Your task to perform on an android device: What's the news in India? Image 0: 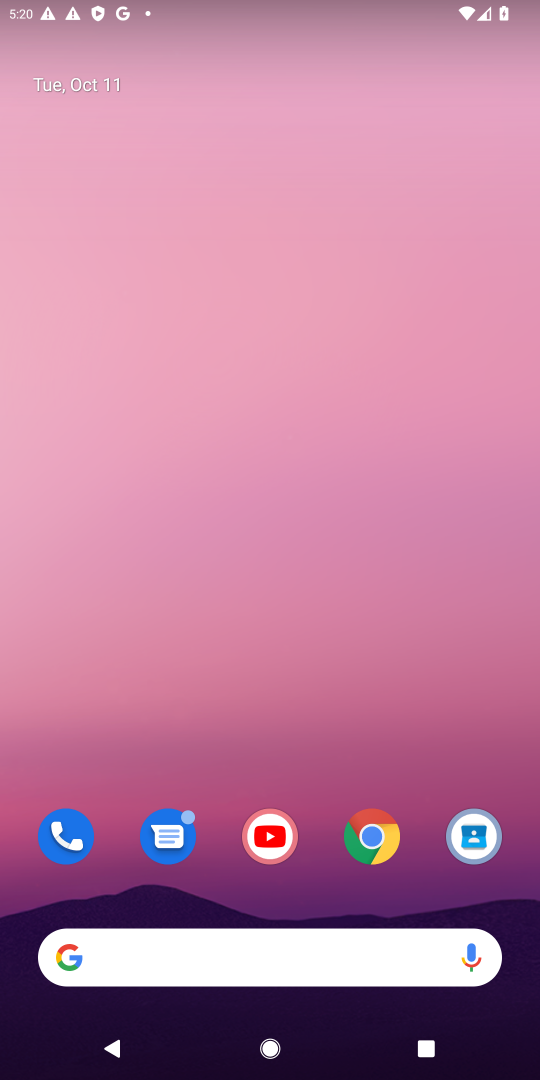
Step 0: click (372, 837)
Your task to perform on an android device: What's the news in India? Image 1: 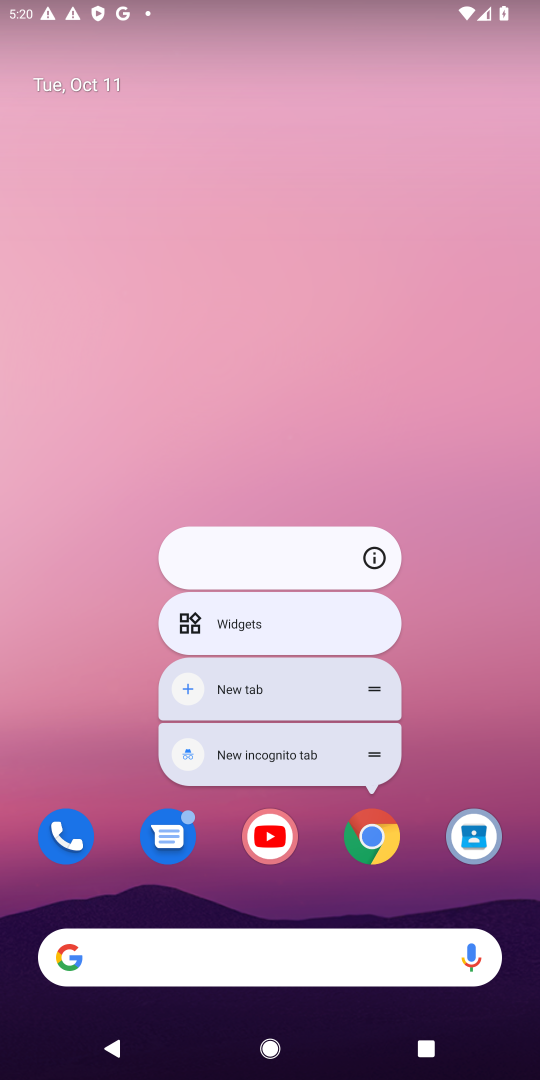
Step 1: click (374, 832)
Your task to perform on an android device: What's the news in India? Image 2: 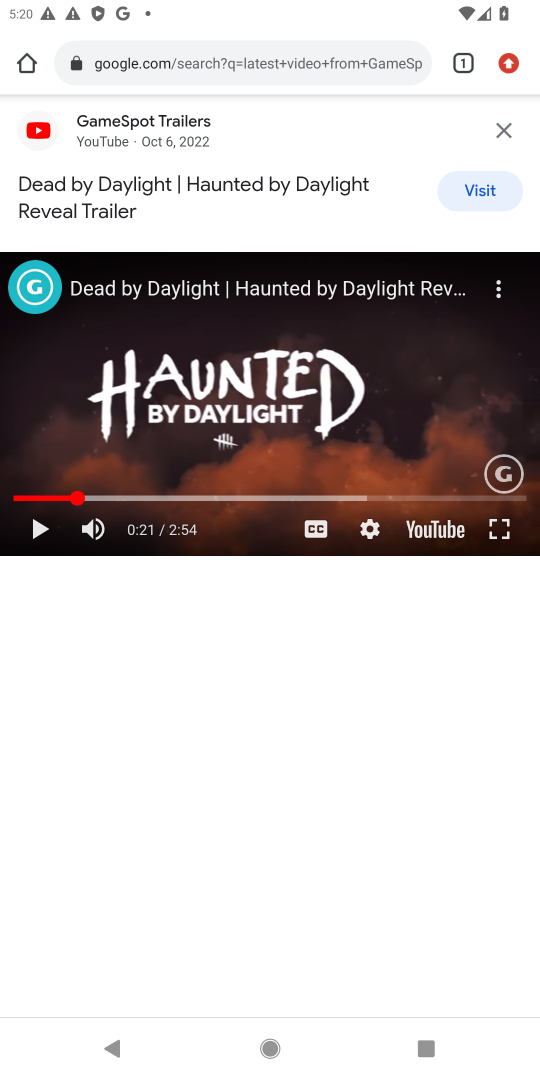
Step 2: click (395, 51)
Your task to perform on an android device: What's the news in India? Image 3: 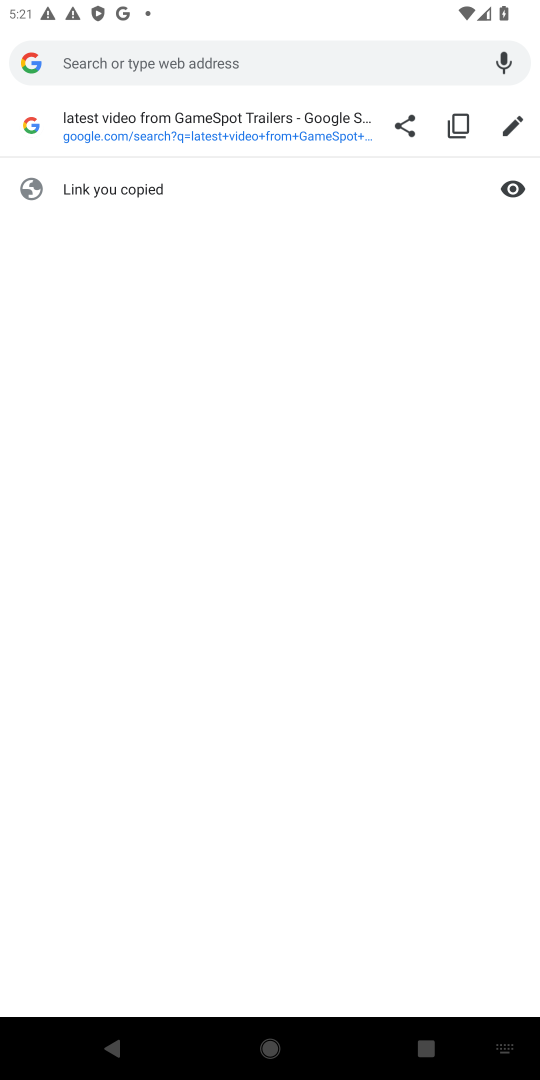
Step 3: type "the news in India"
Your task to perform on an android device: What's the news in India? Image 4: 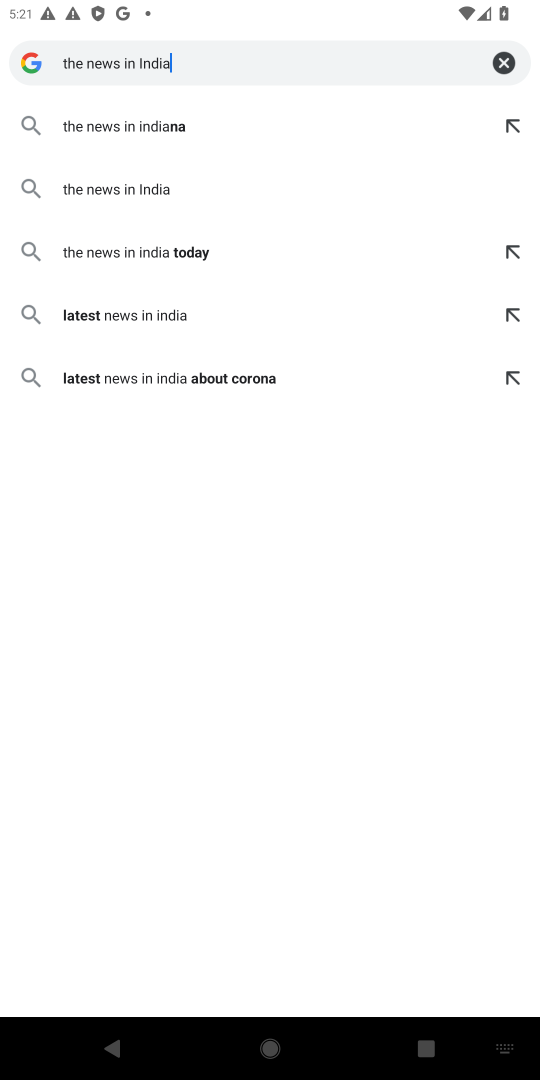
Step 4: click (147, 187)
Your task to perform on an android device: What's the news in India? Image 5: 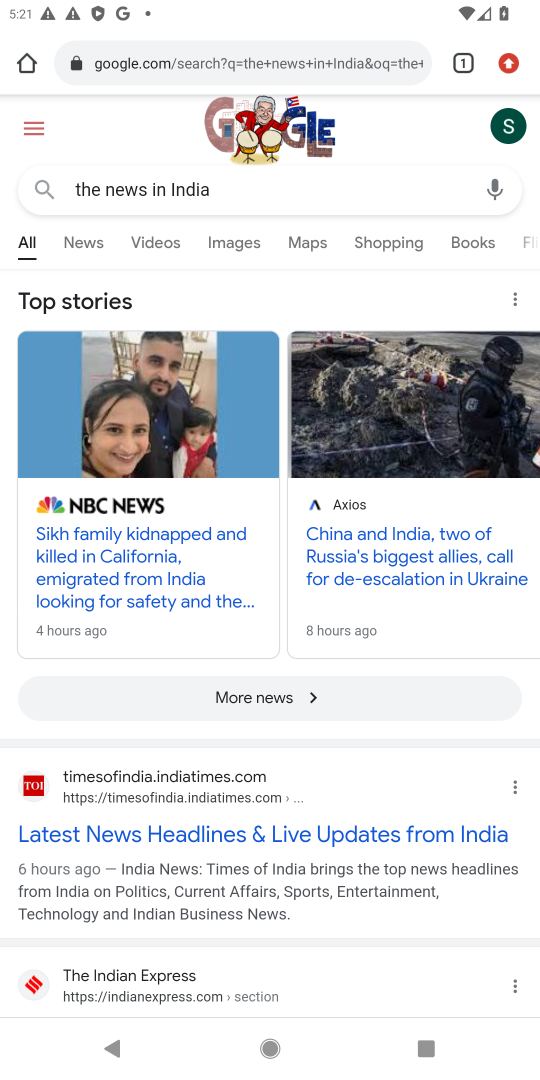
Step 5: click (86, 240)
Your task to perform on an android device: What's the news in India? Image 6: 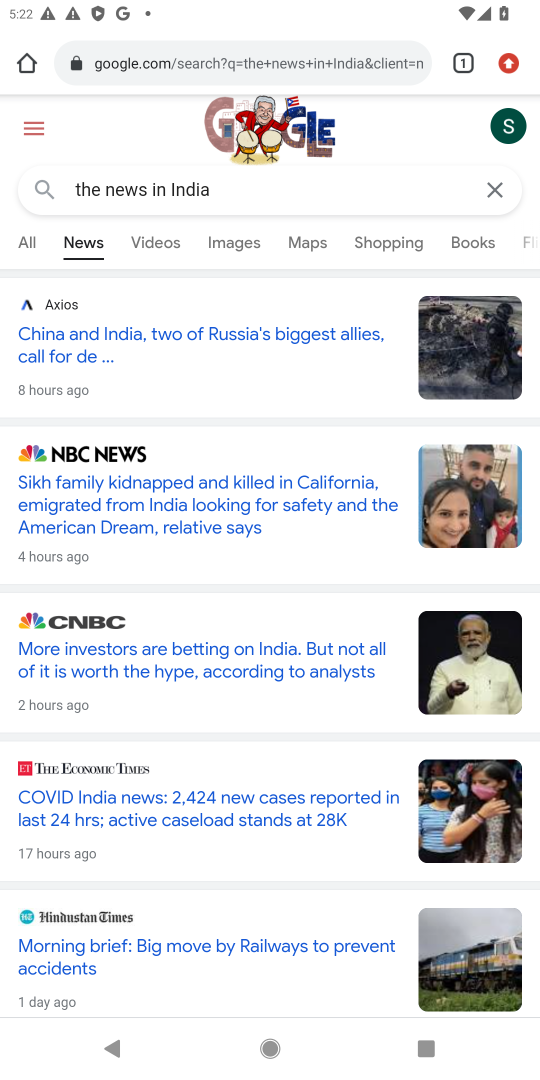
Step 6: task complete